Your task to perform on an android device: change the clock style Image 0: 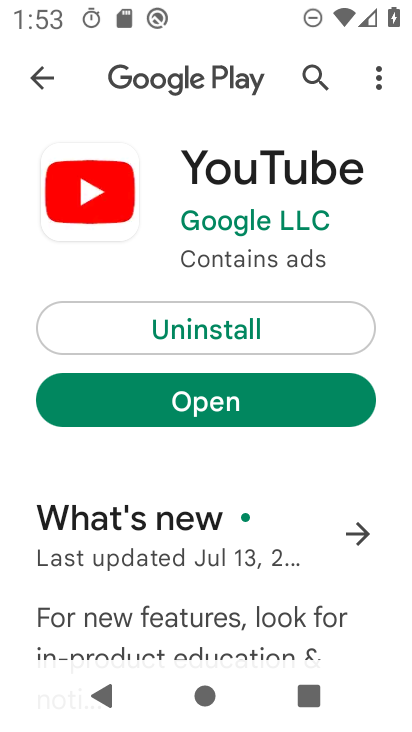
Step 0: press home button
Your task to perform on an android device: change the clock style Image 1: 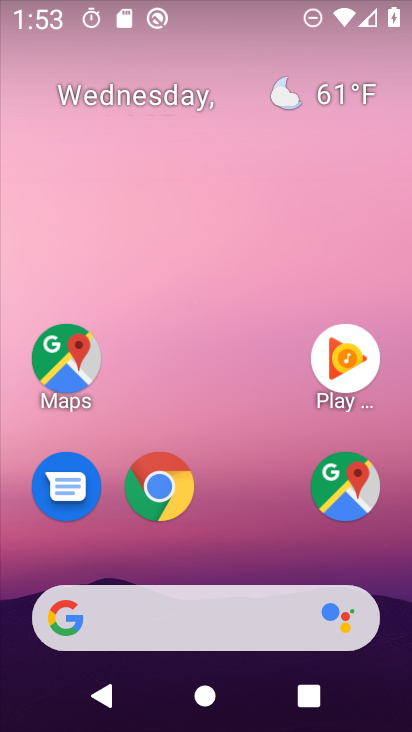
Step 1: drag from (243, 542) to (254, 99)
Your task to perform on an android device: change the clock style Image 2: 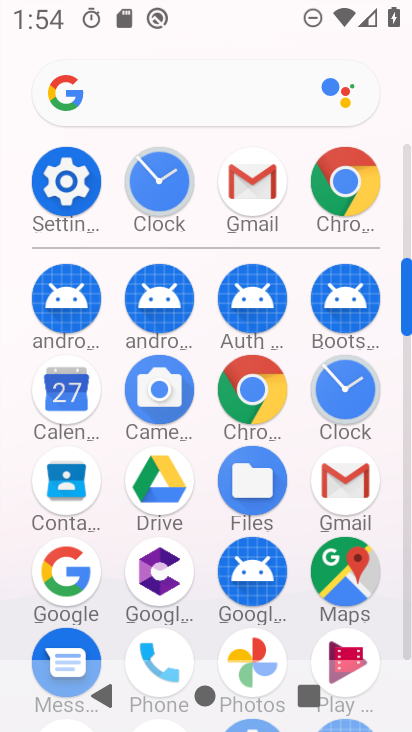
Step 2: click (347, 389)
Your task to perform on an android device: change the clock style Image 3: 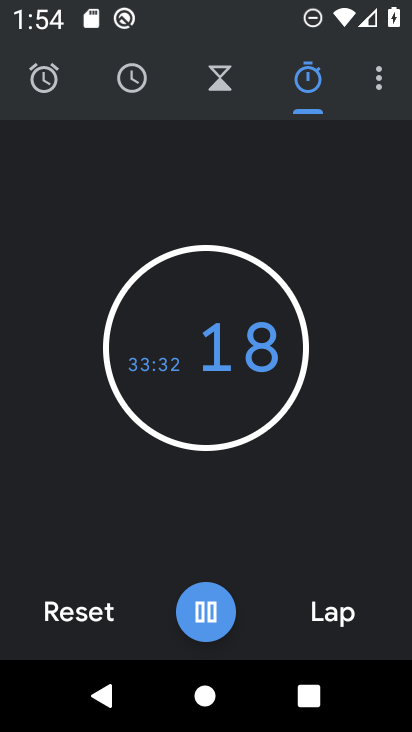
Step 3: click (379, 95)
Your task to perform on an android device: change the clock style Image 4: 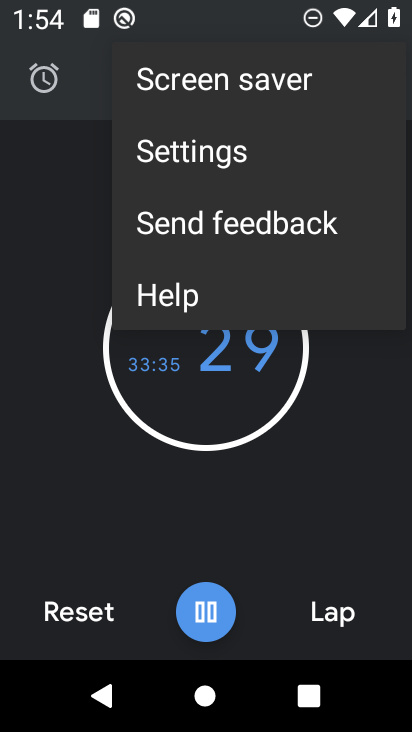
Step 4: click (315, 155)
Your task to perform on an android device: change the clock style Image 5: 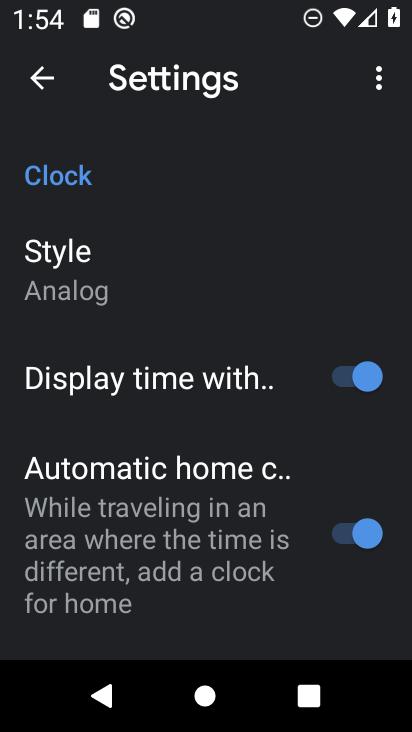
Step 5: drag from (280, 457) to (280, 371)
Your task to perform on an android device: change the clock style Image 6: 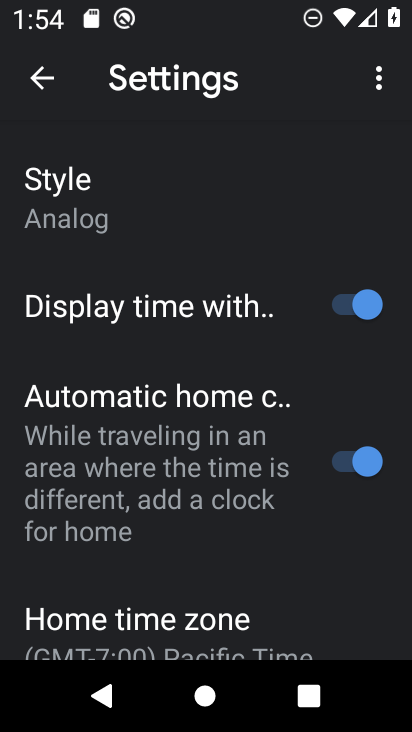
Step 6: drag from (273, 489) to (273, 399)
Your task to perform on an android device: change the clock style Image 7: 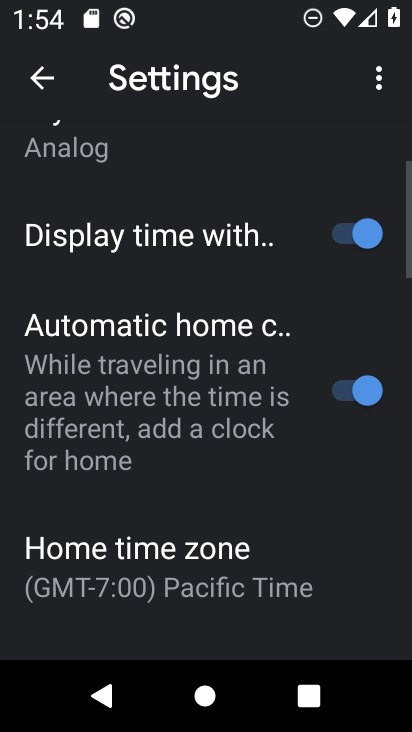
Step 7: drag from (279, 513) to (277, 424)
Your task to perform on an android device: change the clock style Image 8: 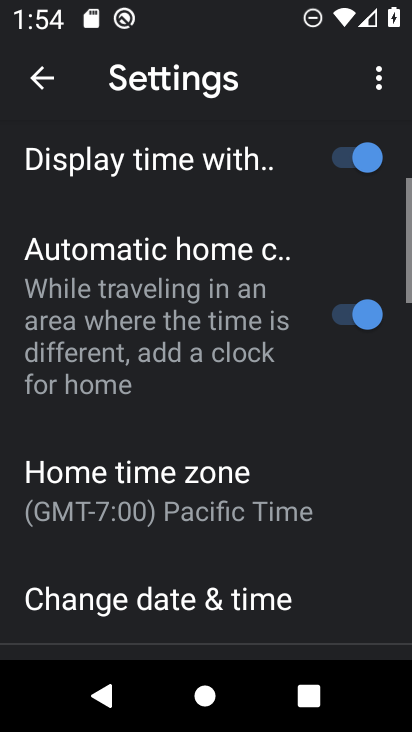
Step 8: drag from (279, 544) to (294, 366)
Your task to perform on an android device: change the clock style Image 9: 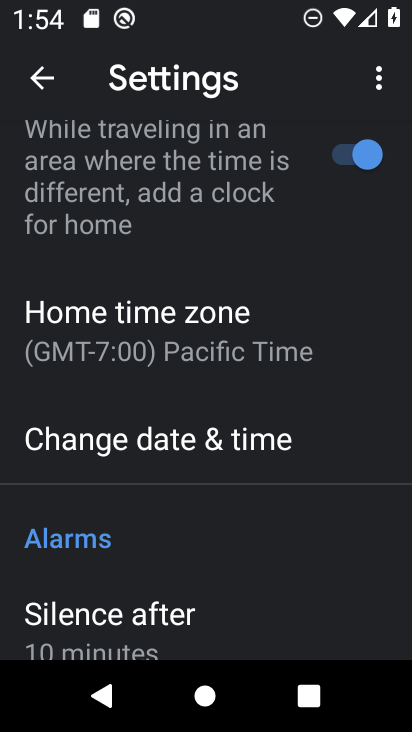
Step 9: drag from (283, 549) to (284, 364)
Your task to perform on an android device: change the clock style Image 10: 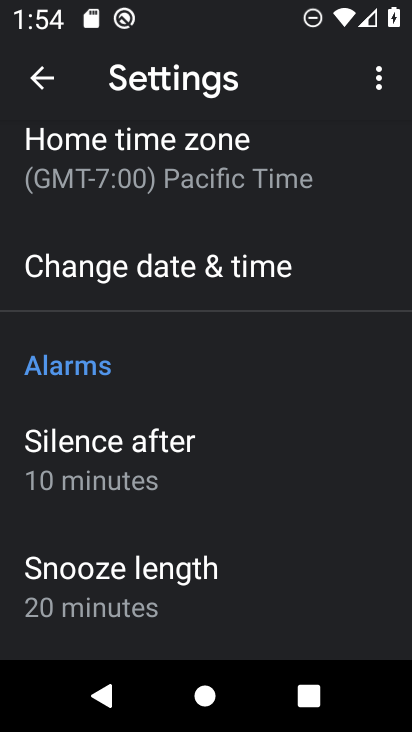
Step 10: drag from (302, 507) to (302, 377)
Your task to perform on an android device: change the clock style Image 11: 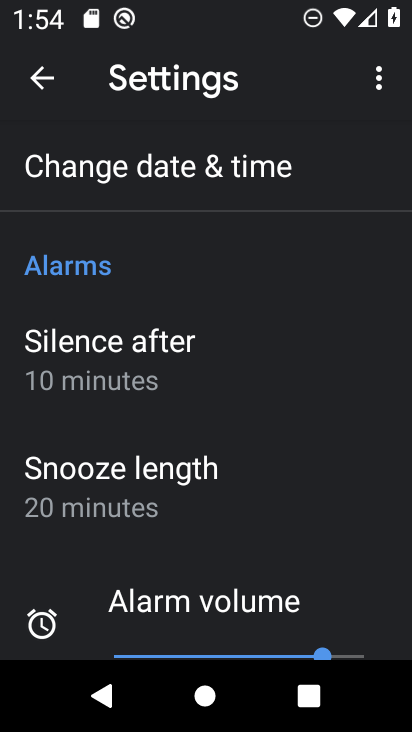
Step 11: drag from (290, 523) to (285, 355)
Your task to perform on an android device: change the clock style Image 12: 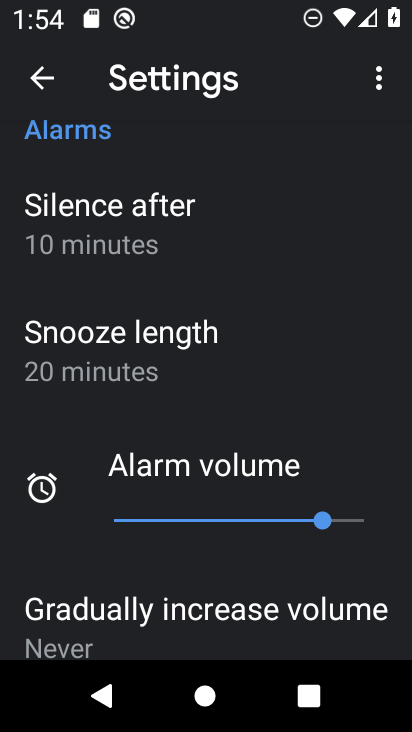
Step 12: drag from (275, 550) to (275, 400)
Your task to perform on an android device: change the clock style Image 13: 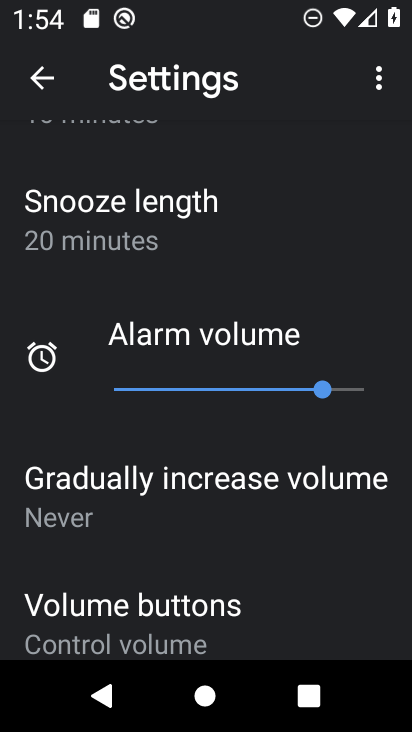
Step 13: drag from (282, 231) to (294, 356)
Your task to perform on an android device: change the clock style Image 14: 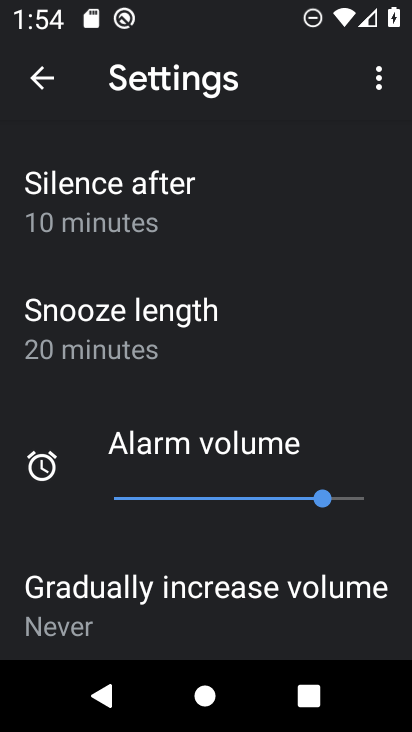
Step 14: drag from (279, 195) to (292, 346)
Your task to perform on an android device: change the clock style Image 15: 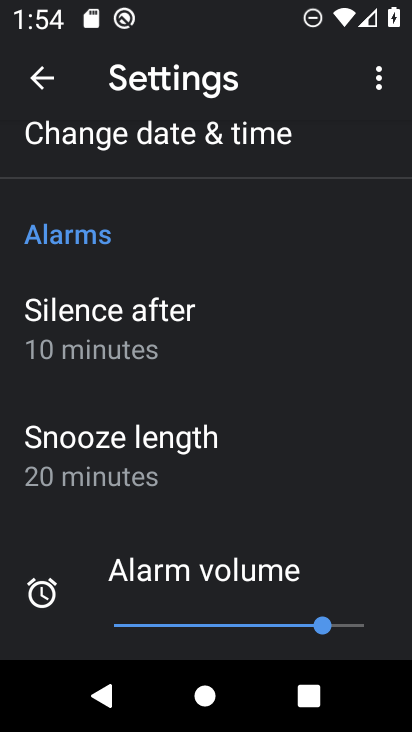
Step 15: drag from (293, 202) to (295, 311)
Your task to perform on an android device: change the clock style Image 16: 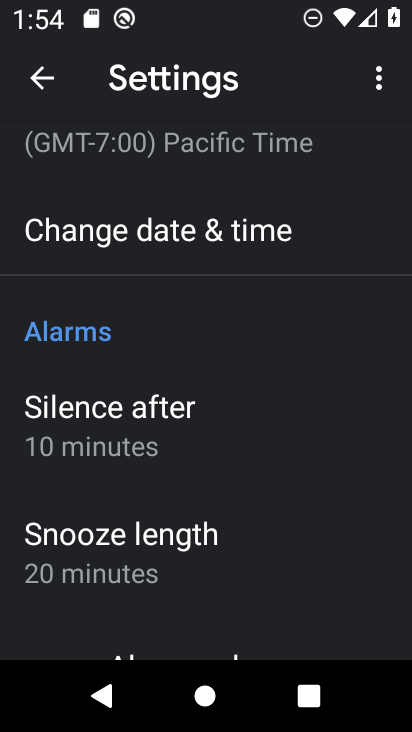
Step 16: drag from (292, 244) to (307, 419)
Your task to perform on an android device: change the clock style Image 17: 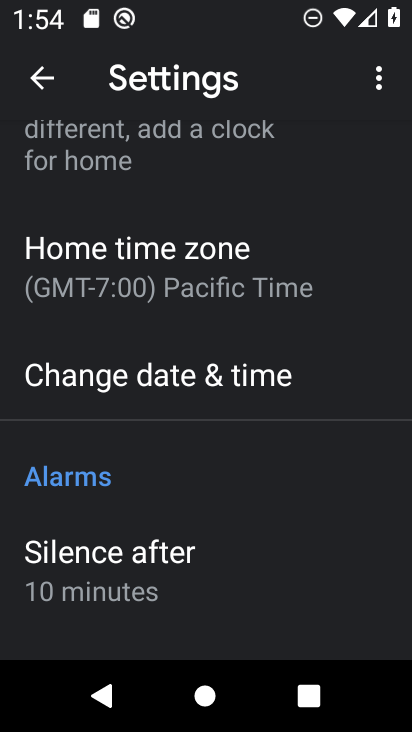
Step 17: drag from (305, 196) to (309, 356)
Your task to perform on an android device: change the clock style Image 18: 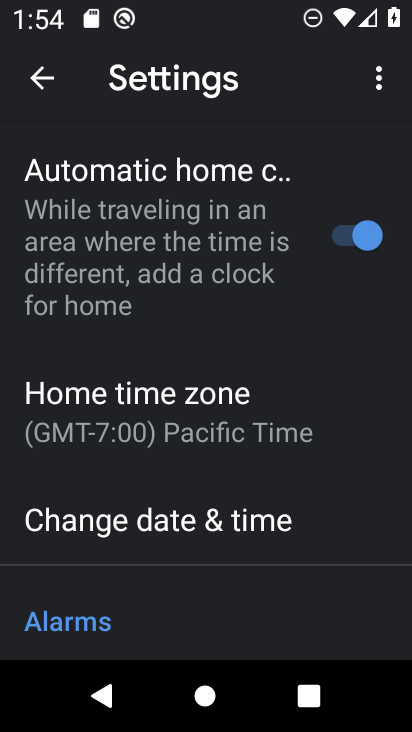
Step 18: drag from (277, 182) to (277, 274)
Your task to perform on an android device: change the clock style Image 19: 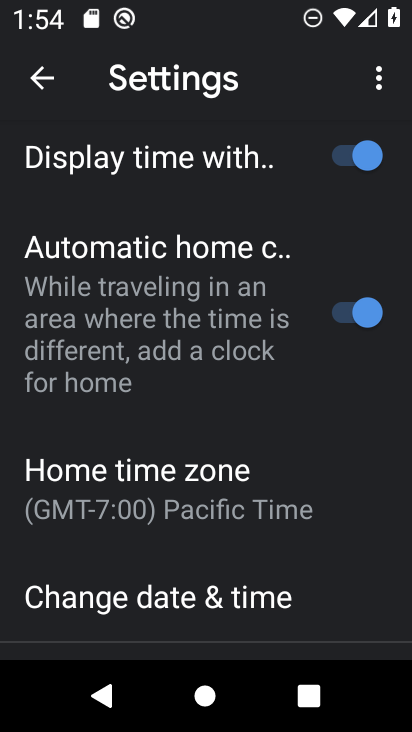
Step 19: drag from (254, 200) to (260, 330)
Your task to perform on an android device: change the clock style Image 20: 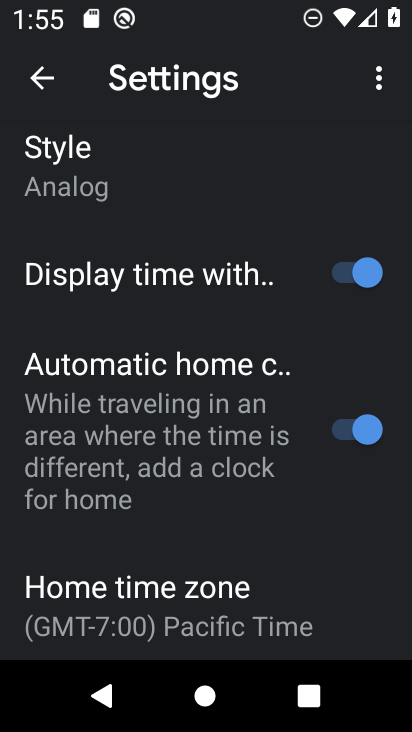
Step 20: click (138, 184)
Your task to perform on an android device: change the clock style Image 21: 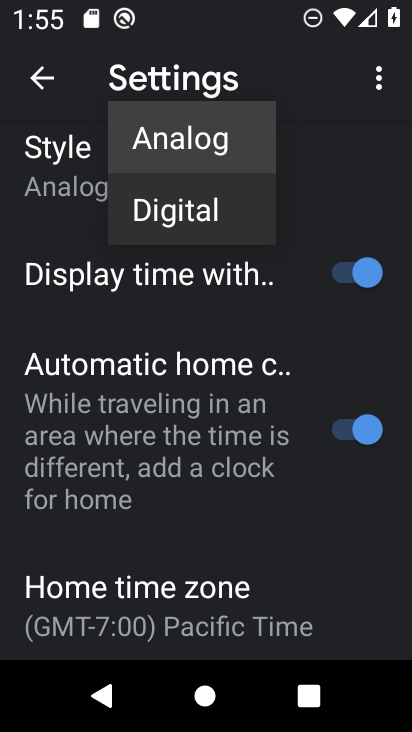
Step 21: click (167, 212)
Your task to perform on an android device: change the clock style Image 22: 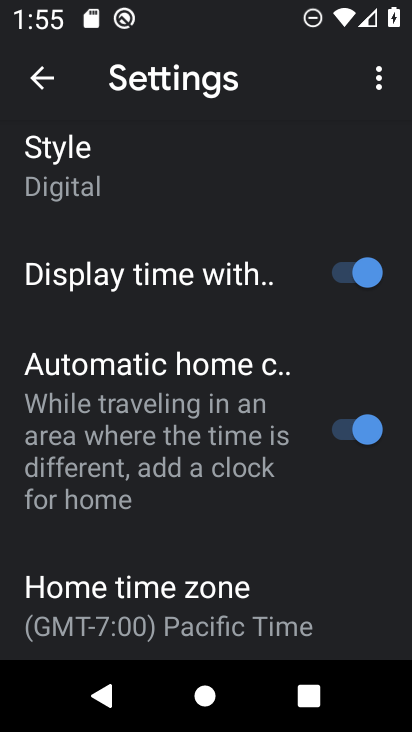
Step 22: task complete